Your task to perform on an android device: Open display settings Image 0: 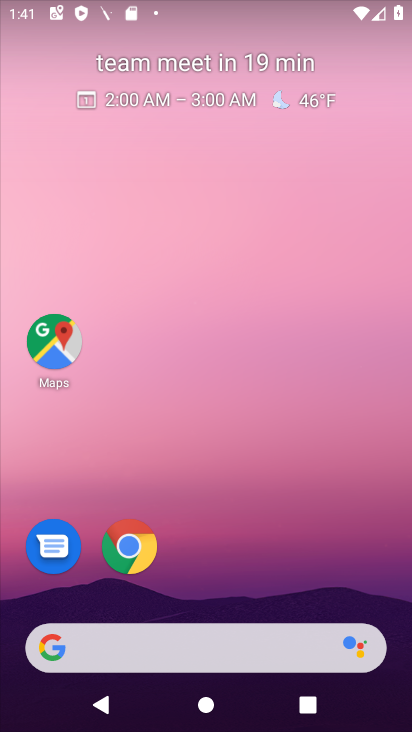
Step 0: drag from (394, 617) to (314, 59)
Your task to perform on an android device: Open display settings Image 1: 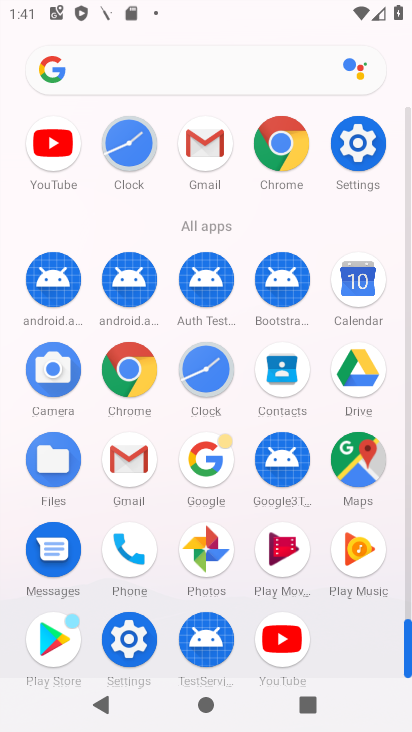
Step 1: click (129, 638)
Your task to perform on an android device: Open display settings Image 2: 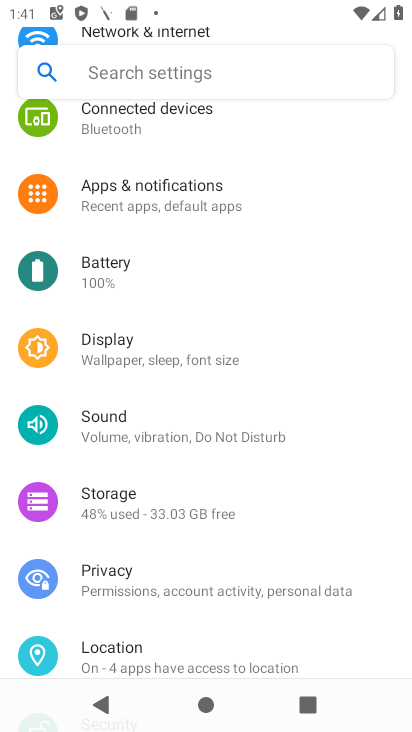
Step 2: click (122, 346)
Your task to perform on an android device: Open display settings Image 3: 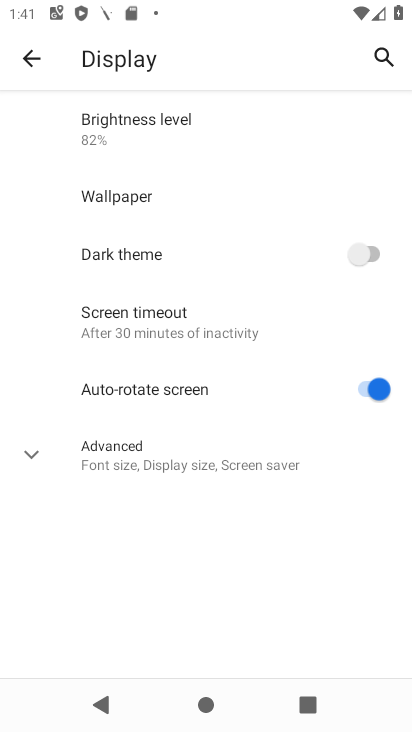
Step 3: click (30, 449)
Your task to perform on an android device: Open display settings Image 4: 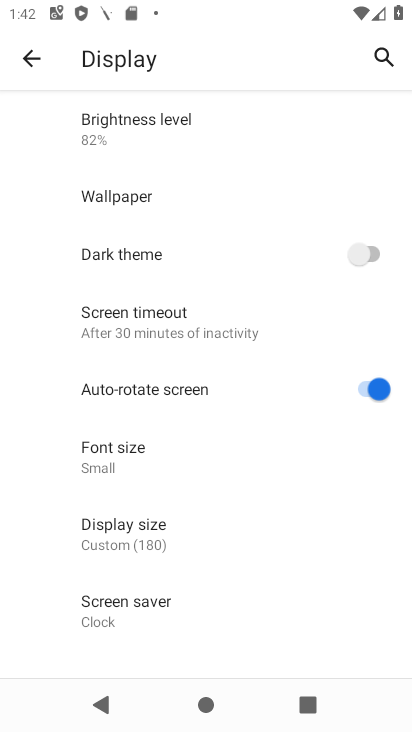
Step 4: task complete